Your task to perform on an android device: refresh tabs in the chrome app Image 0: 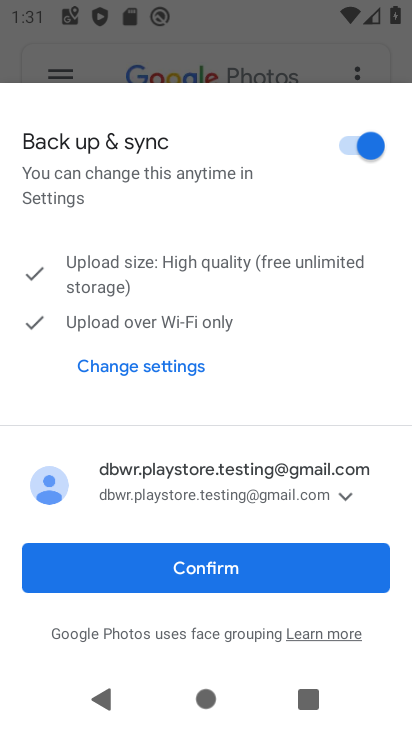
Step 0: press back button
Your task to perform on an android device: refresh tabs in the chrome app Image 1: 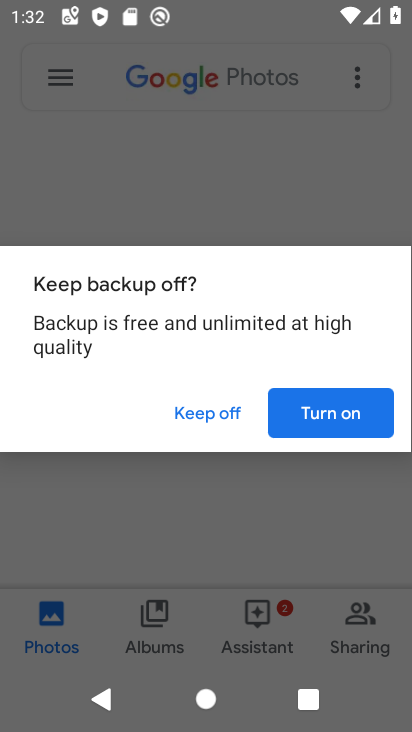
Step 1: press home button
Your task to perform on an android device: refresh tabs in the chrome app Image 2: 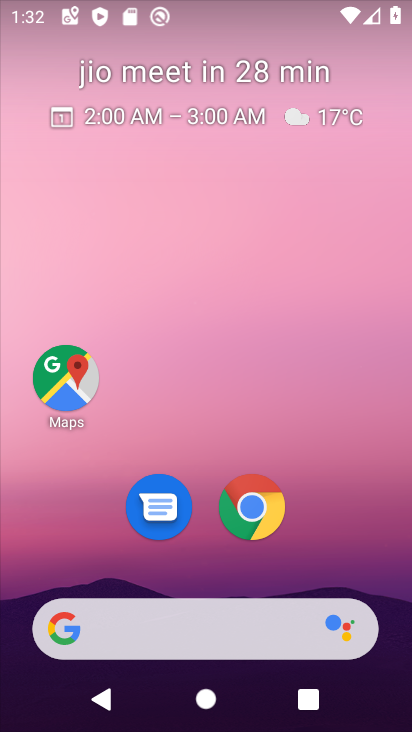
Step 2: drag from (369, 515) to (284, 0)
Your task to perform on an android device: refresh tabs in the chrome app Image 3: 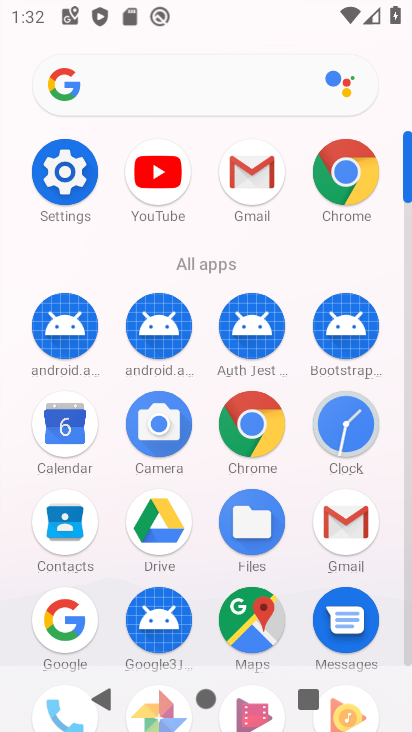
Step 3: click (341, 164)
Your task to perform on an android device: refresh tabs in the chrome app Image 4: 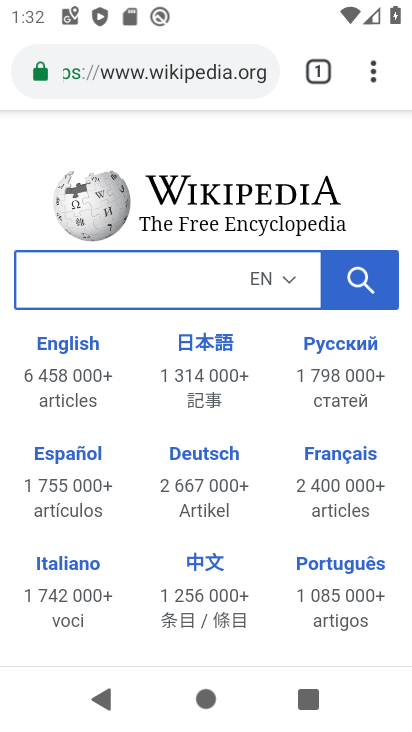
Step 4: click (206, 71)
Your task to perform on an android device: refresh tabs in the chrome app Image 5: 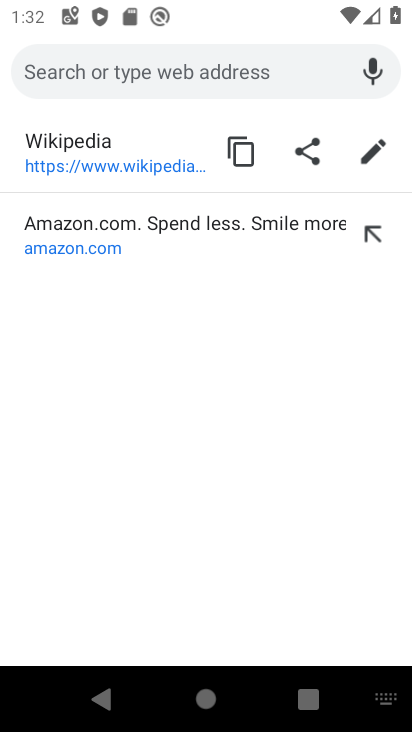
Step 5: press back button
Your task to perform on an android device: refresh tabs in the chrome app Image 6: 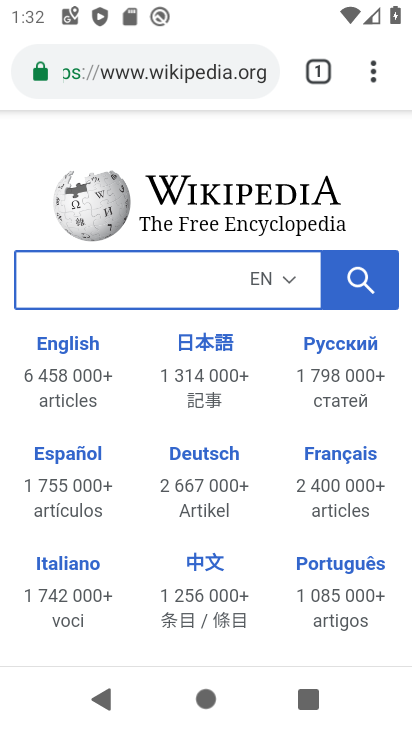
Step 6: click (371, 62)
Your task to perform on an android device: refresh tabs in the chrome app Image 7: 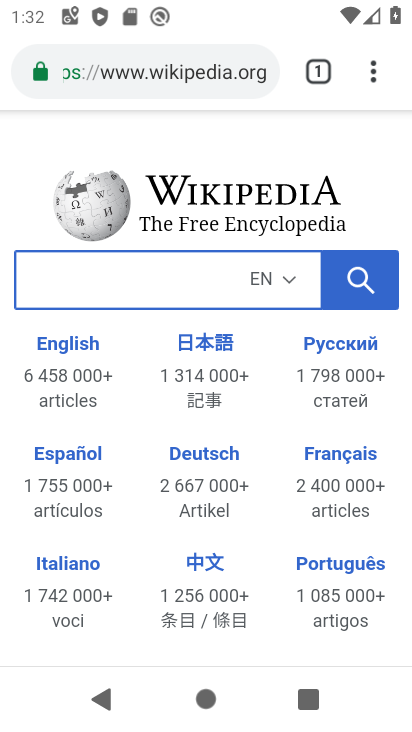
Step 7: task complete